Your task to perform on an android device: turn vacation reply on in the gmail app Image 0: 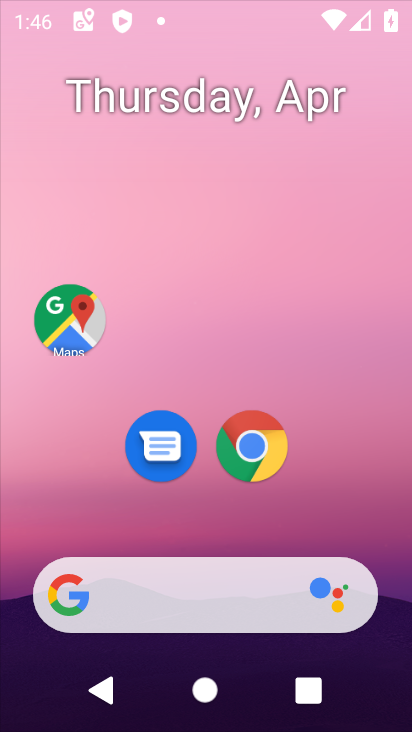
Step 0: click (320, 163)
Your task to perform on an android device: turn vacation reply on in the gmail app Image 1: 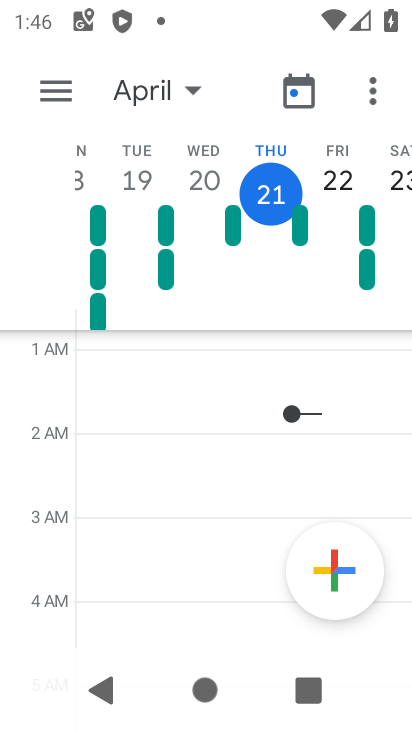
Step 1: task complete